Your task to perform on an android device: View the shopping cart on target.com. Image 0: 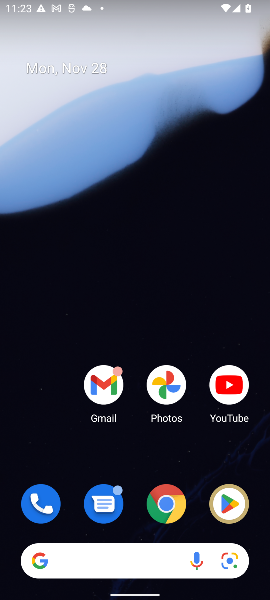
Step 0: click (166, 510)
Your task to perform on an android device: View the shopping cart on target.com. Image 1: 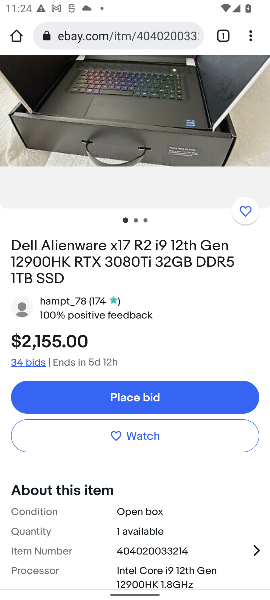
Step 1: click (111, 35)
Your task to perform on an android device: View the shopping cart on target.com. Image 2: 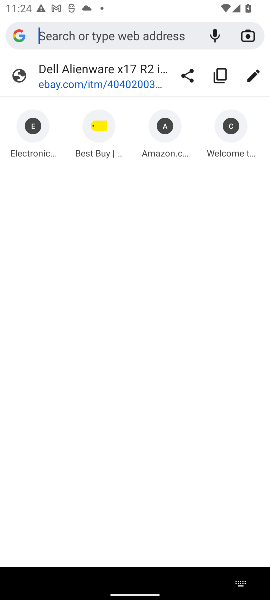
Step 2: type "target.com"
Your task to perform on an android device: View the shopping cart on target.com. Image 3: 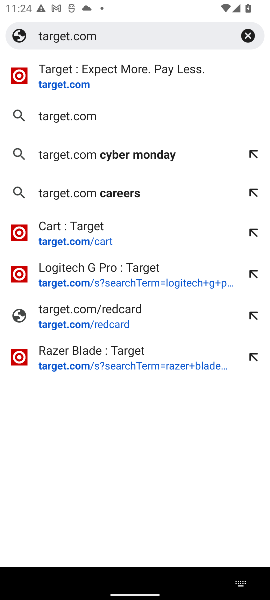
Step 3: click (68, 85)
Your task to perform on an android device: View the shopping cart on target.com. Image 4: 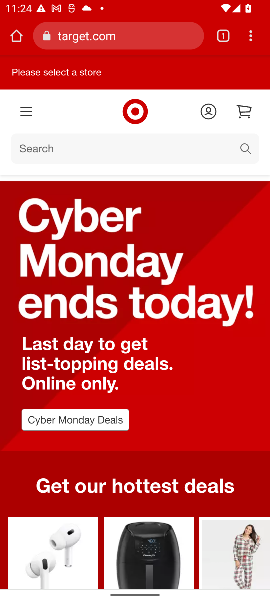
Step 4: click (243, 112)
Your task to perform on an android device: View the shopping cart on target.com. Image 5: 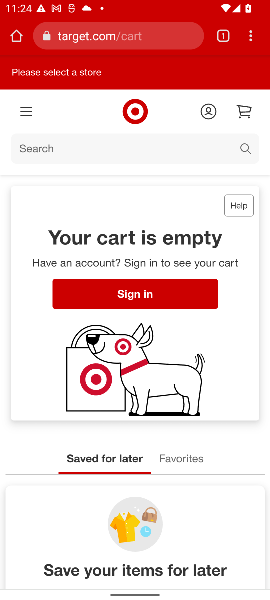
Step 5: task complete